Your task to perform on an android device: turn off notifications in google photos Image 0: 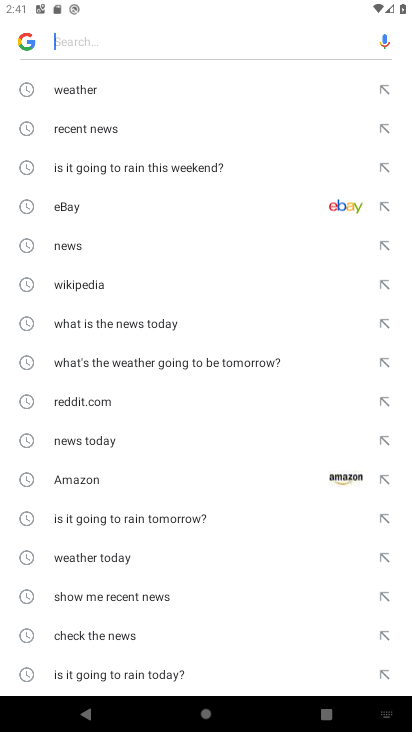
Step 0: press home button
Your task to perform on an android device: turn off notifications in google photos Image 1: 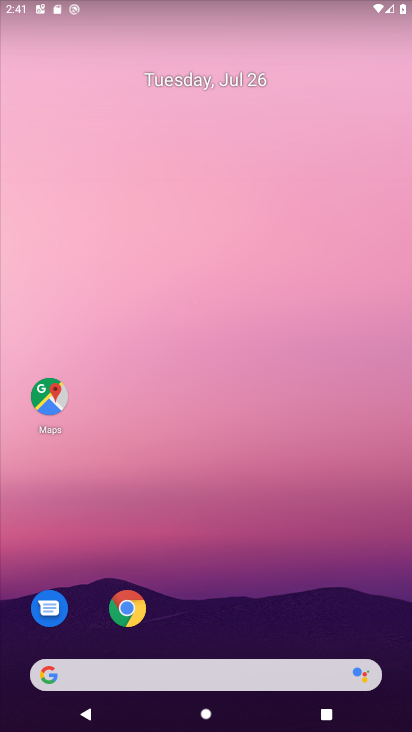
Step 1: drag from (269, 578) to (198, 187)
Your task to perform on an android device: turn off notifications in google photos Image 2: 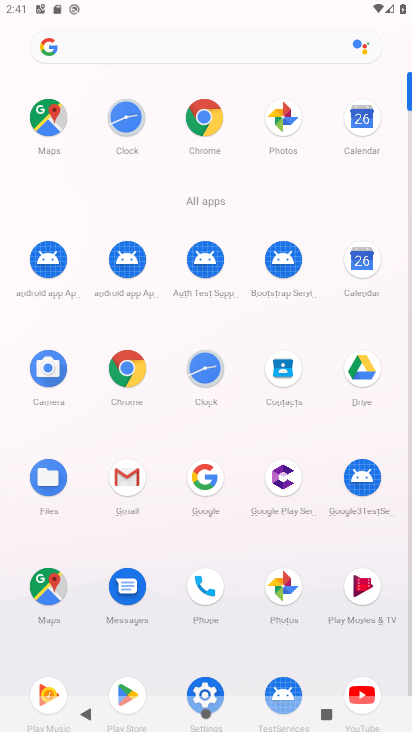
Step 2: click (271, 582)
Your task to perform on an android device: turn off notifications in google photos Image 3: 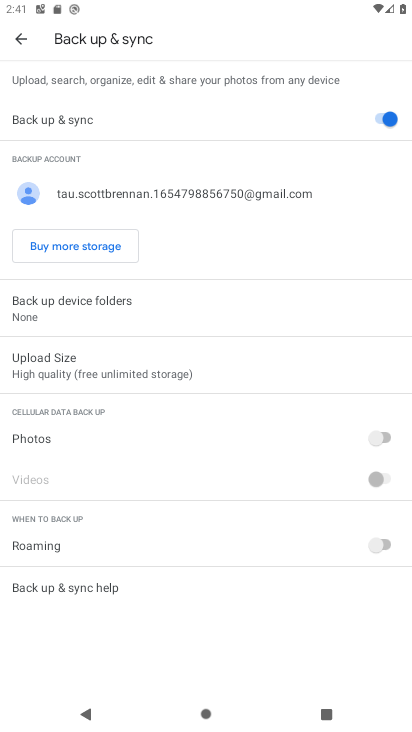
Step 3: click (22, 33)
Your task to perform on an android device: turn off notifications in google photos Image 4: 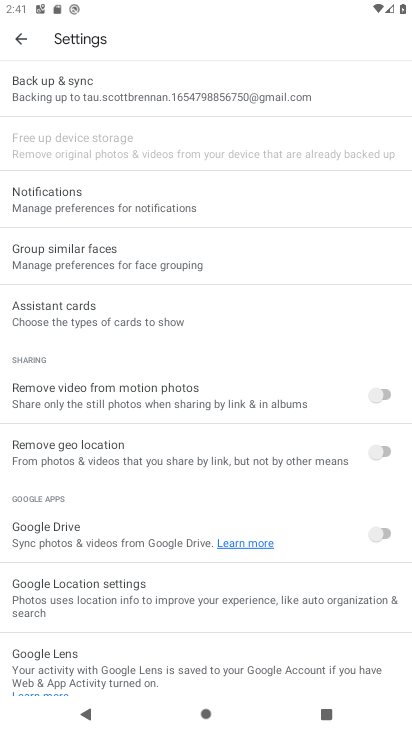
Step 4: click (90, 197)
Your task to perform on an android device: turn off notifications in google photos Image 5: 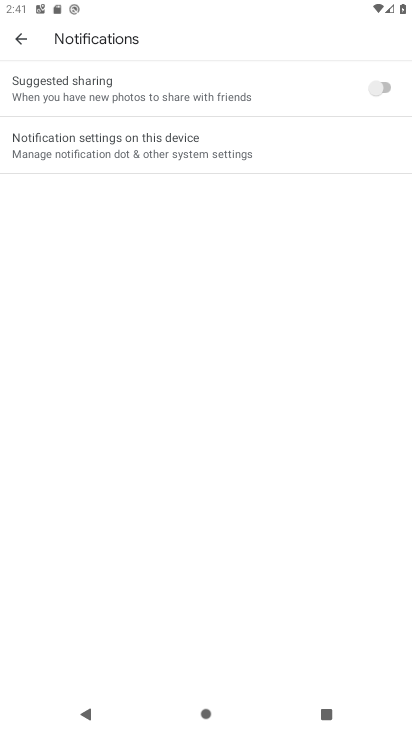
Step 5: click (220, 160)
Your task to perform on an android device: turn off notifications in google photos Image 6: 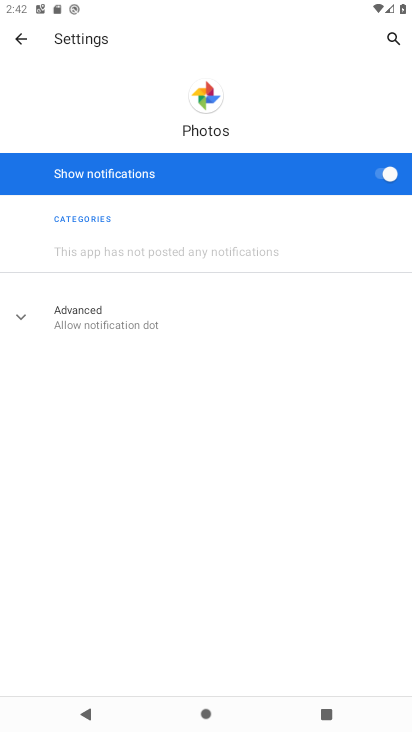
Step 6: click (381, 179)
Your task to perform on an android device: turn off notifications in google photos Image 7: 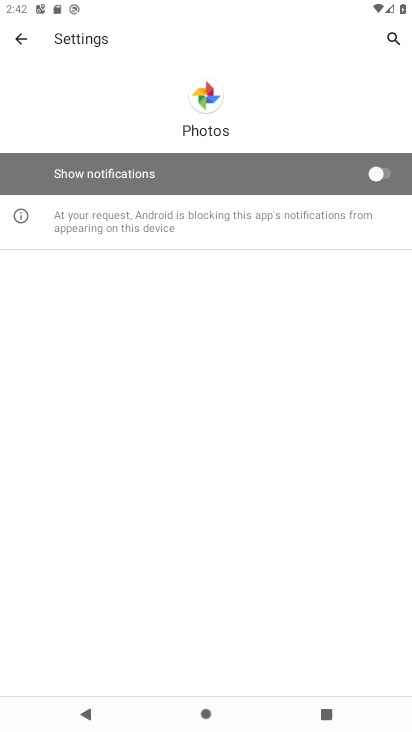
Step 7: task complete